Your task to perform on an android device: Open Google Chrome and open the bookmarks view Image 0: 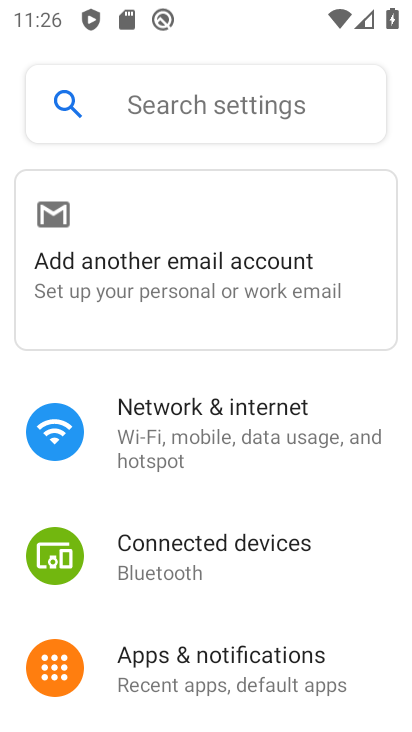
Step 0: press home button
Your task to perform on an android device: Open Google Chrome and open the bookmarks view Image 1: 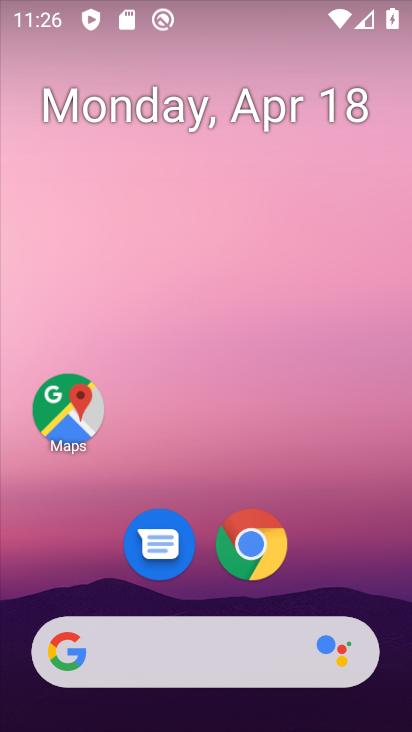
Step 1: click (251, 552)
Your task to perform on an android device: Open Google Chrome and open the bookmarks view Image 2: 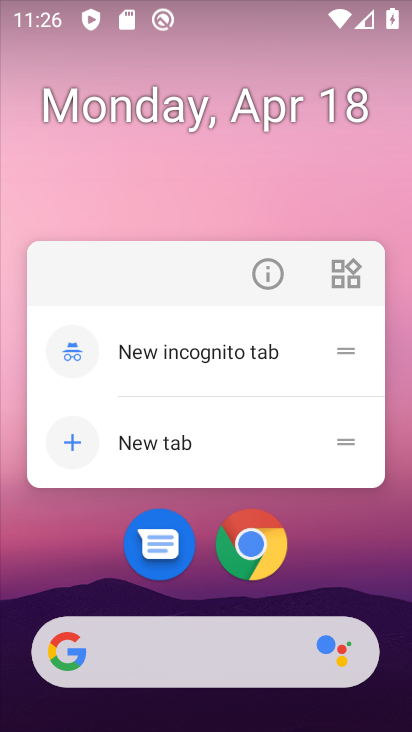
Step 2: click (265, 546)
Your task to perform on an android device: Open Google Chrome and open the bookmarks view Image 3: 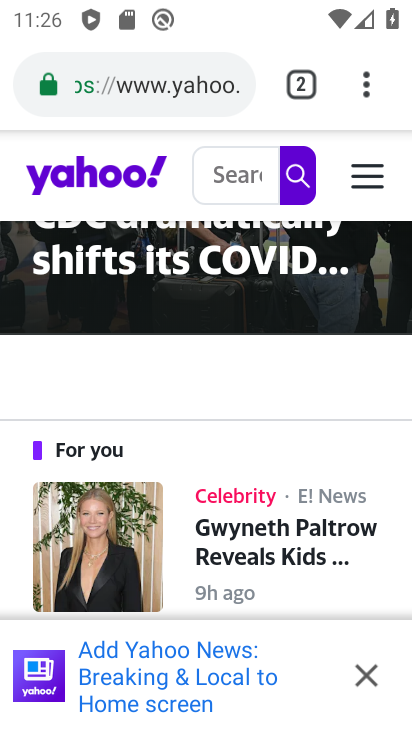
Step 3: click (367, 81)
Your task to perform on an android device: Open Google Chrome and open the bookmarks view Image 4: 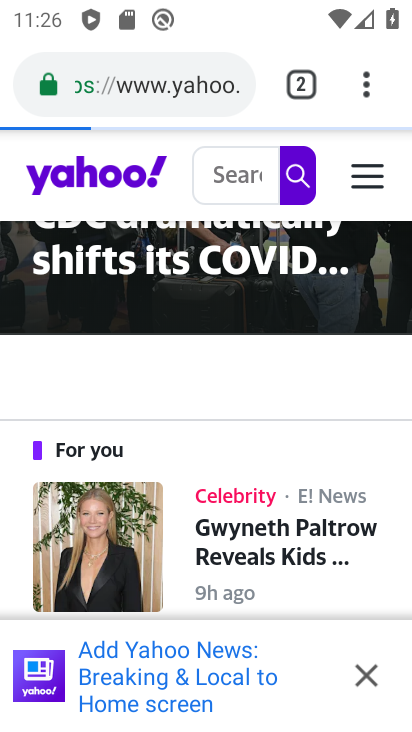
Step 4: click (367, 81)
Your task to perform on an android device: Open Google Chrome and open the bookmarks view Image 5: 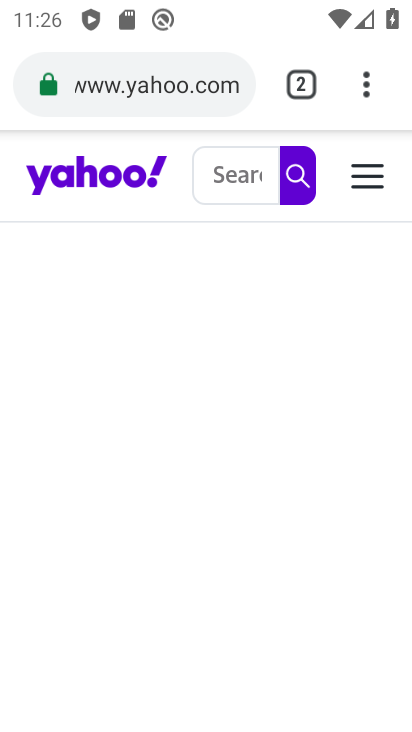
Step 5: click (368, 95)
Your task to perform on an android device: Open Google Chrome and open the bookmarks view Image 6: 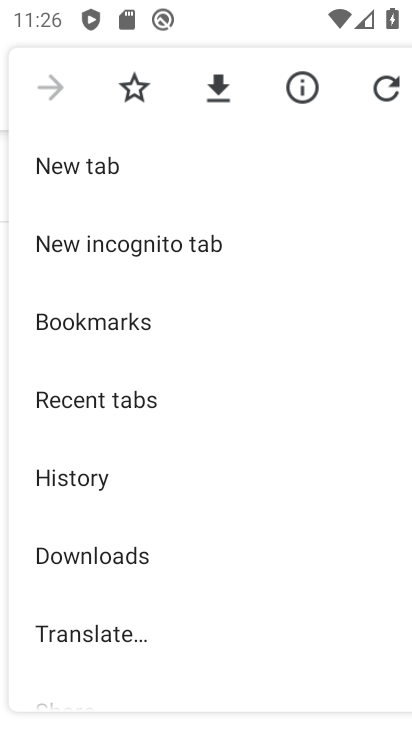
Step 6: click (97, 327)
Your task to perform on an android device: Open Google Chrome and open the bookmarks view Image 7: 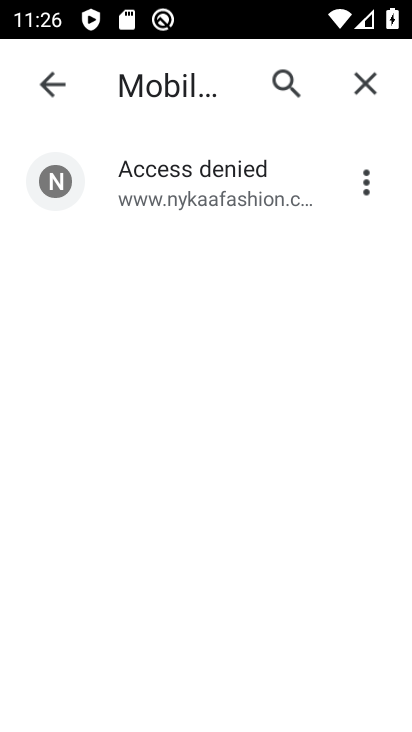
Step 7: task complete